Your task to perform on an android device: set an alarm Image 0: 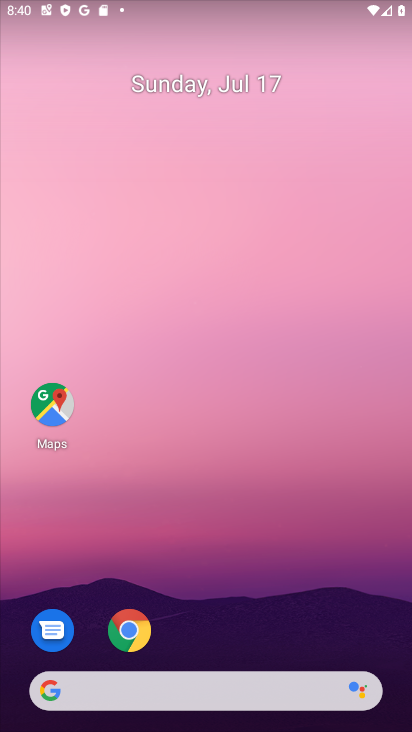
Step 0: drag from (227, 625) to (193, 34)
Your task to perform on an android device: set an alarm Image 1: 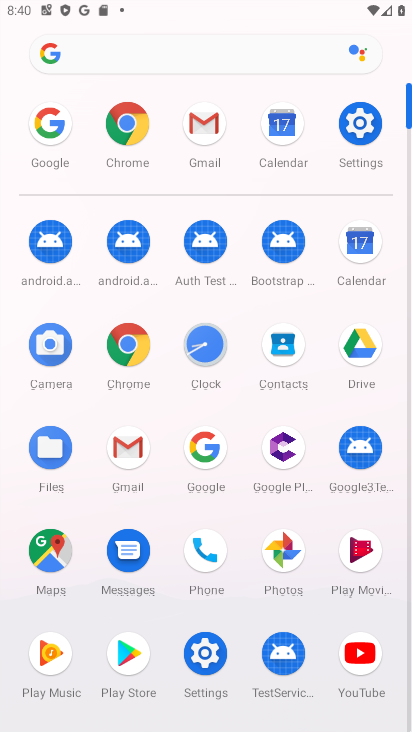
Step 1: click (213, 350)
Your task to perform on an android device: set an alarm Image 2: 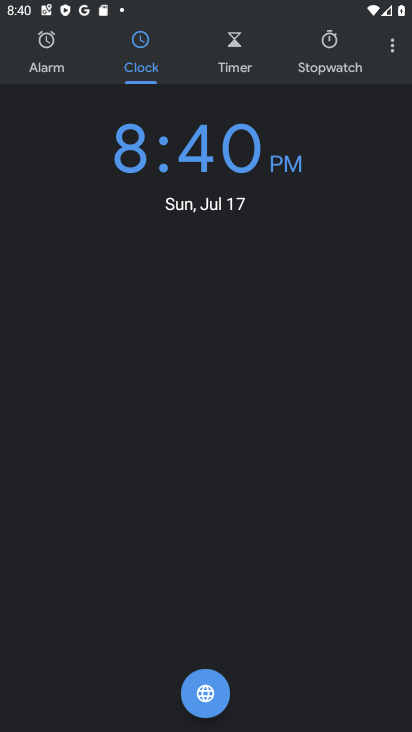
Step 2: click (47, 53)
Your task to perform on an android device: set an alarm Image 3: 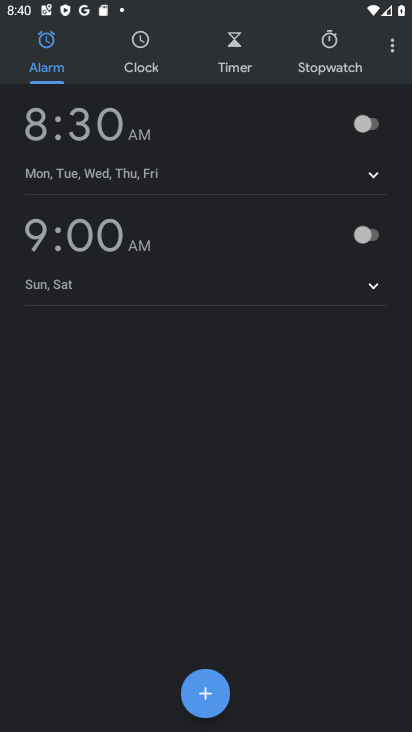
Step 3: click (383, 134)
Your task to perform on an android device: set an alarm Image 4: 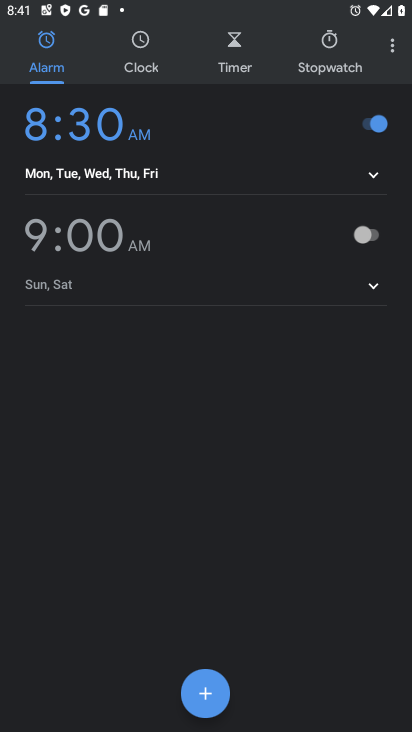
Step 4: task complete